Your task to perform on an android device: find snoozed emails in the gmail app Image 0: 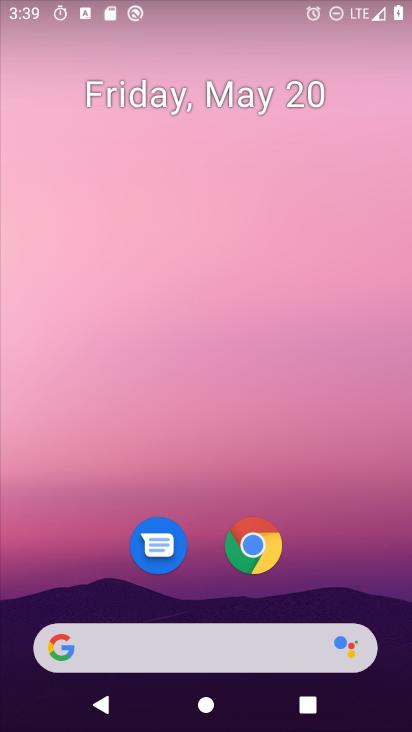
Step 0: drag from (214, 496) to (277, 79)
Your task to perform on an android device: find snoozed emails in the gmail app Image 1: 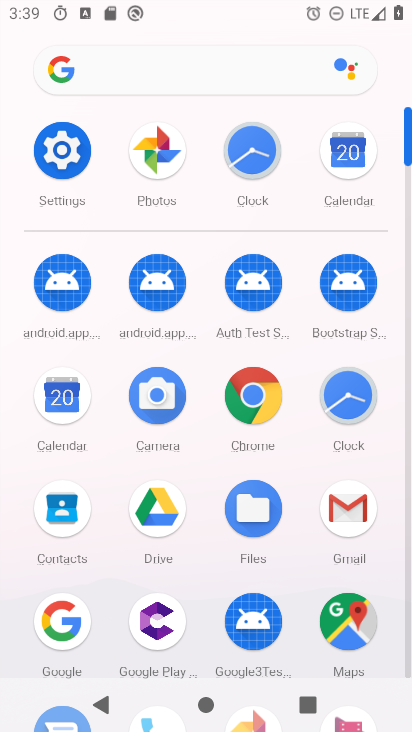
Step 1: click (344, 519)
Your task to perform on an android device: find snoozed emails in the gmail app Image 2: 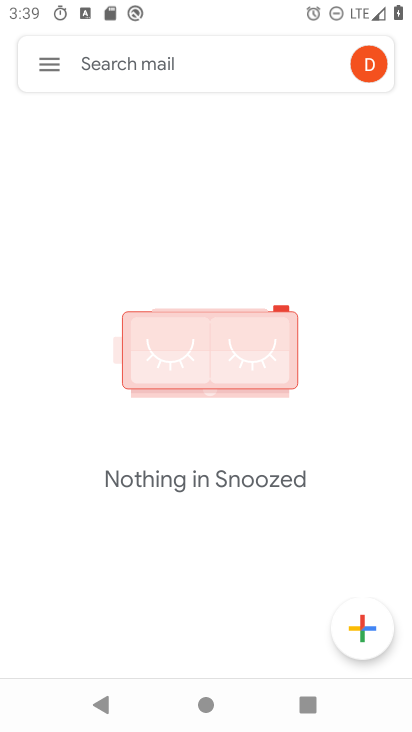
Step 2: click (53, 71)
Your task to perform on an android device: find snoozed emails in the gmail app Image 3: 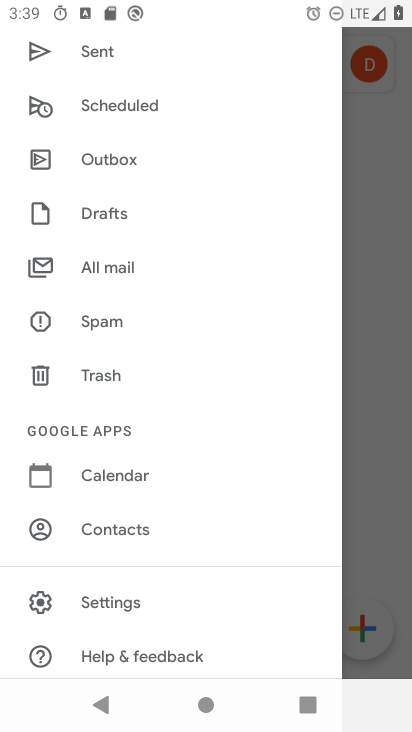
Step 3: drag from (138, 193) to (188, 636)
Your task to perform on an android device: find snoozed emails in the gmail app Image 4: 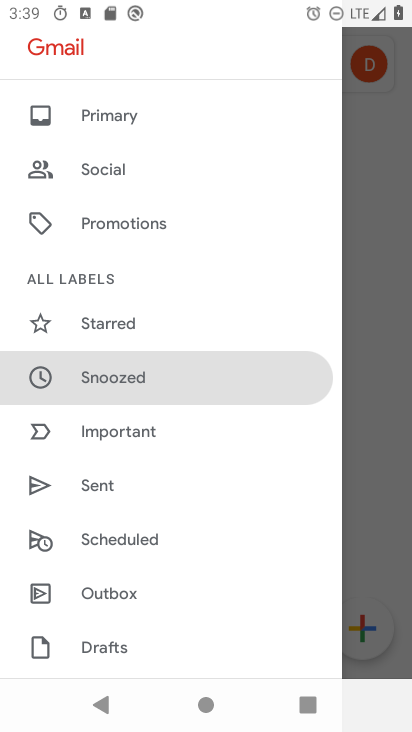
Step 4: click (139, 380)
Your task to perform on an android device: find snoozed emails in the gmail app Image 5: 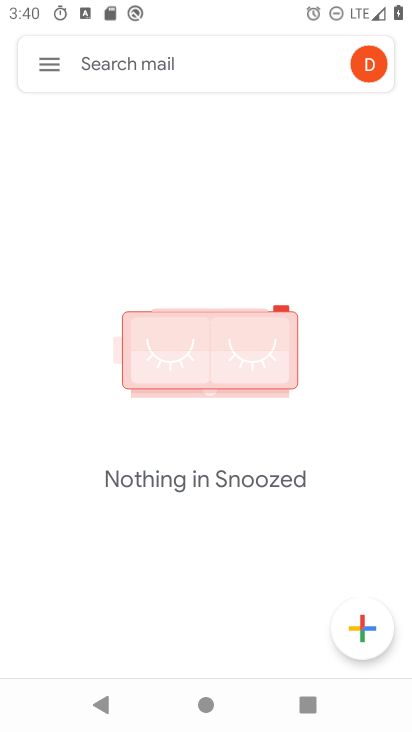
Step 5: task complete